Your task to perform on an android device: Open CNN.com Image 0: 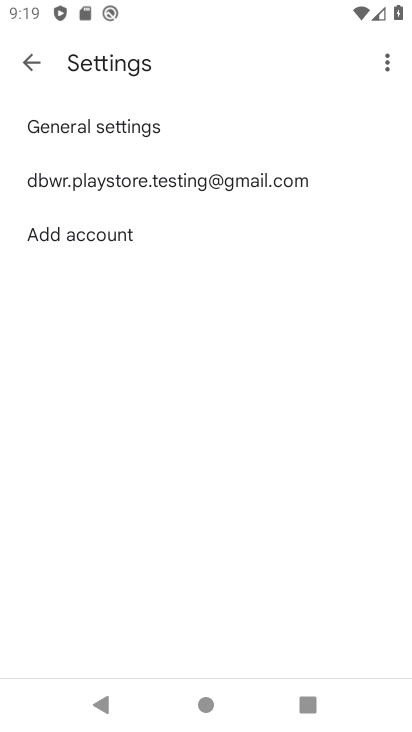
Step 0: press home button
Your task to perform on an android device: Open CNN.com Image 1: 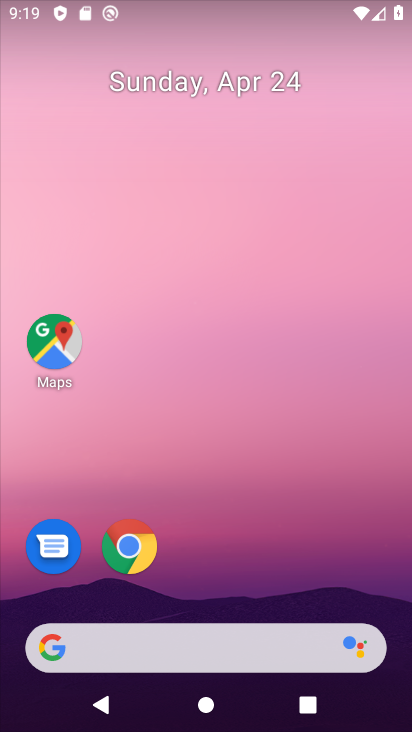
Step 1: click (133, 547)
Your task to perform on an android device: Open CNN.com Image 2: 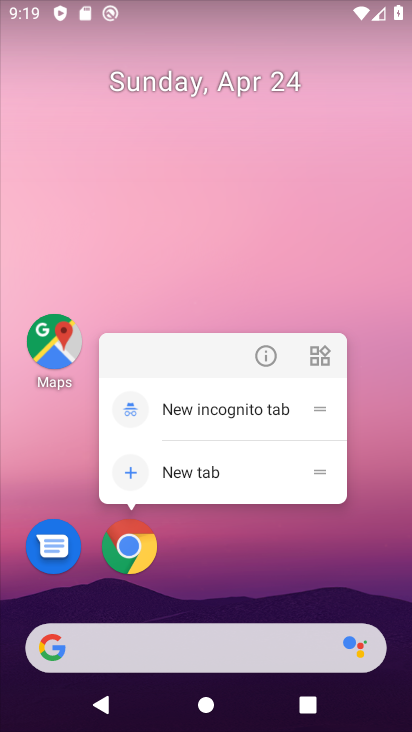
Step 2: click (133, 545)
Your task to perform on an android device: Open CNN.com Image 3: 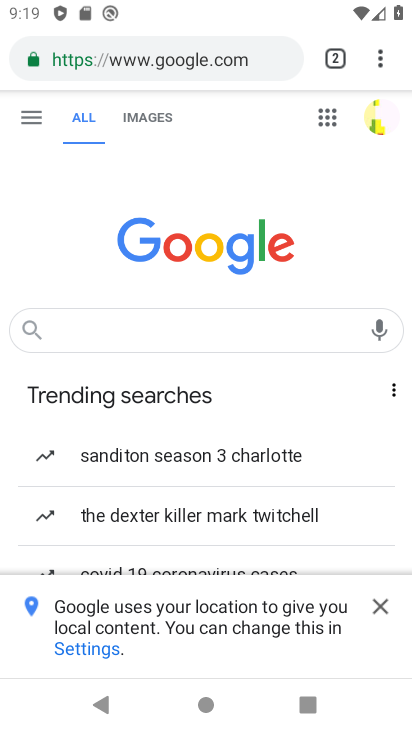
Step 3: click (253, 61)
Your task to perform on an android device: Open CNN.com Image 4: 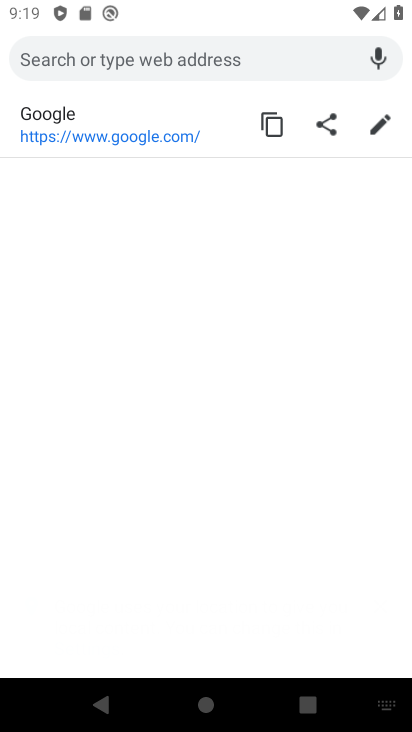
Step 4: type "cnn.com"
Your task to perform on an android device: Open CNN.com Image 5: 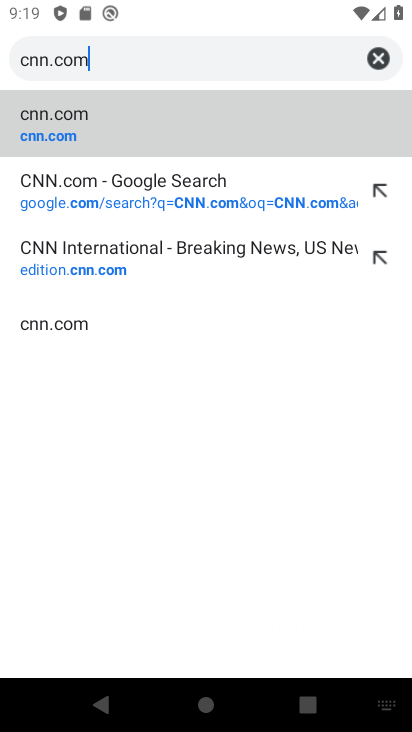
Step 5: click (231, 111)
Your task to perform on an android device: Open CNN.com Image 6: 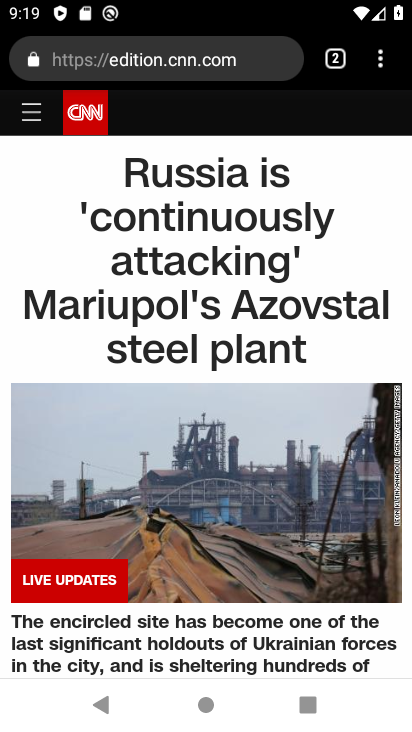
Step 6: task complete